Your task to perform on an android device: open app "PlayWell" (install if not already installed) Image 0: 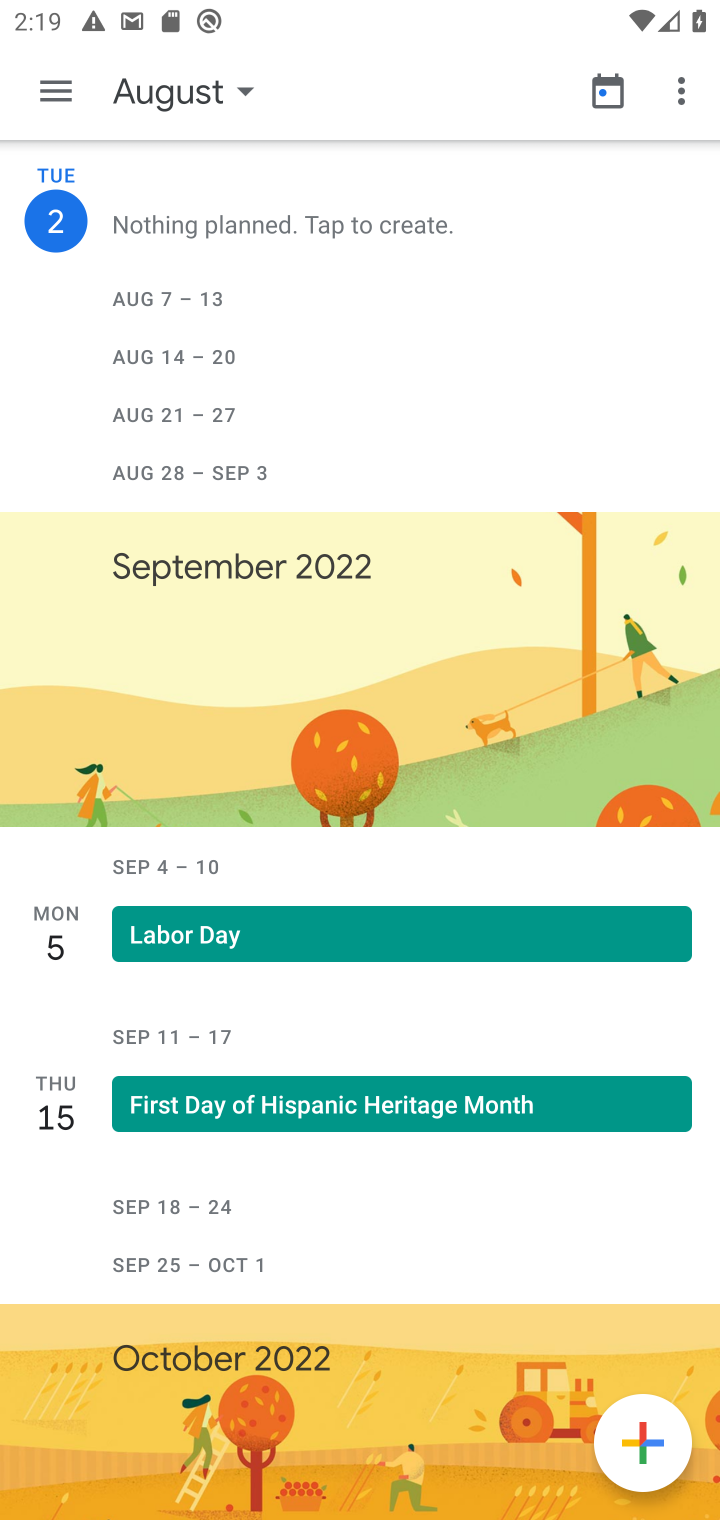
Step 0: press home button
Your task to perform on an android device: open app "PlayWell" (install if not already installed) Image 1: 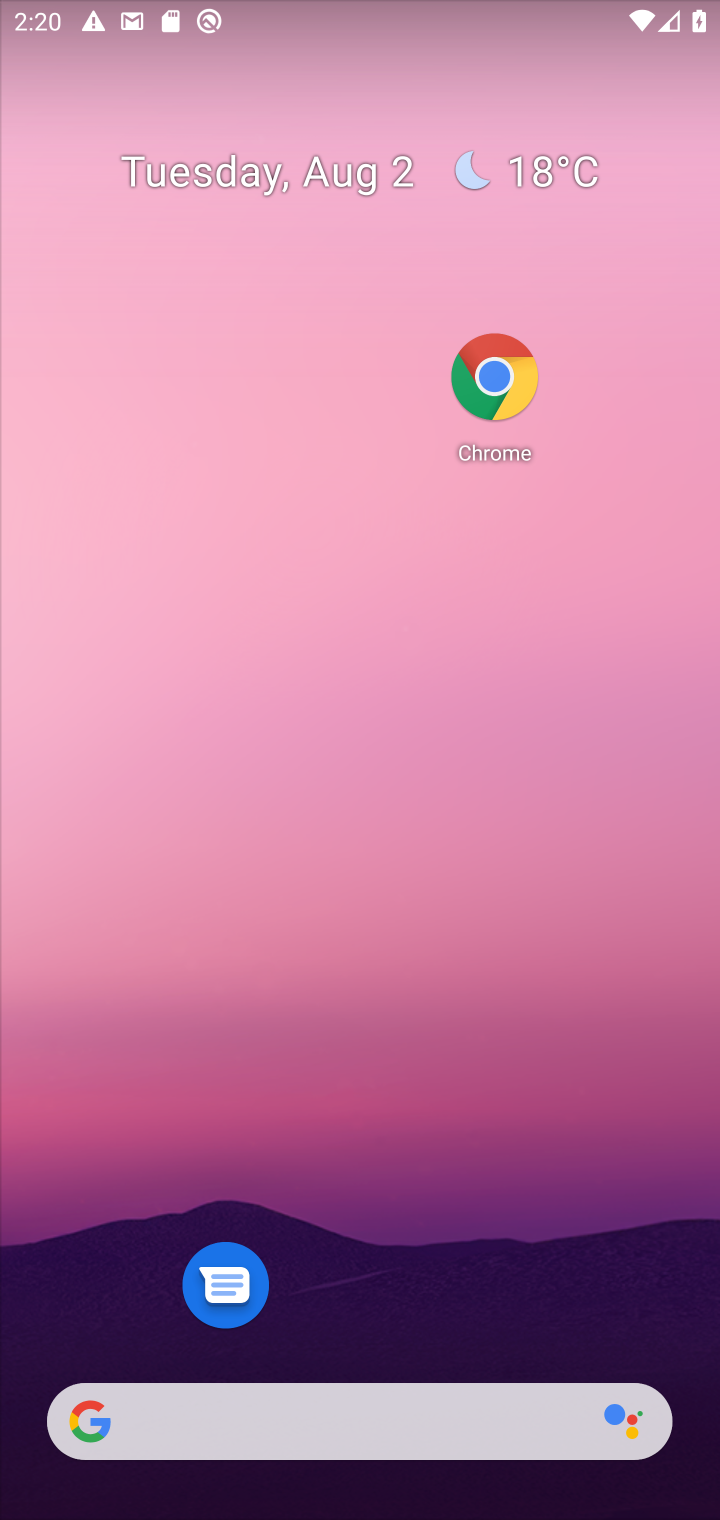
Step 1: drag from (461, 1094) to (480, 113)
Your task to perform on an android device: open app "PlayWell" (install if not already installed) Image 2: 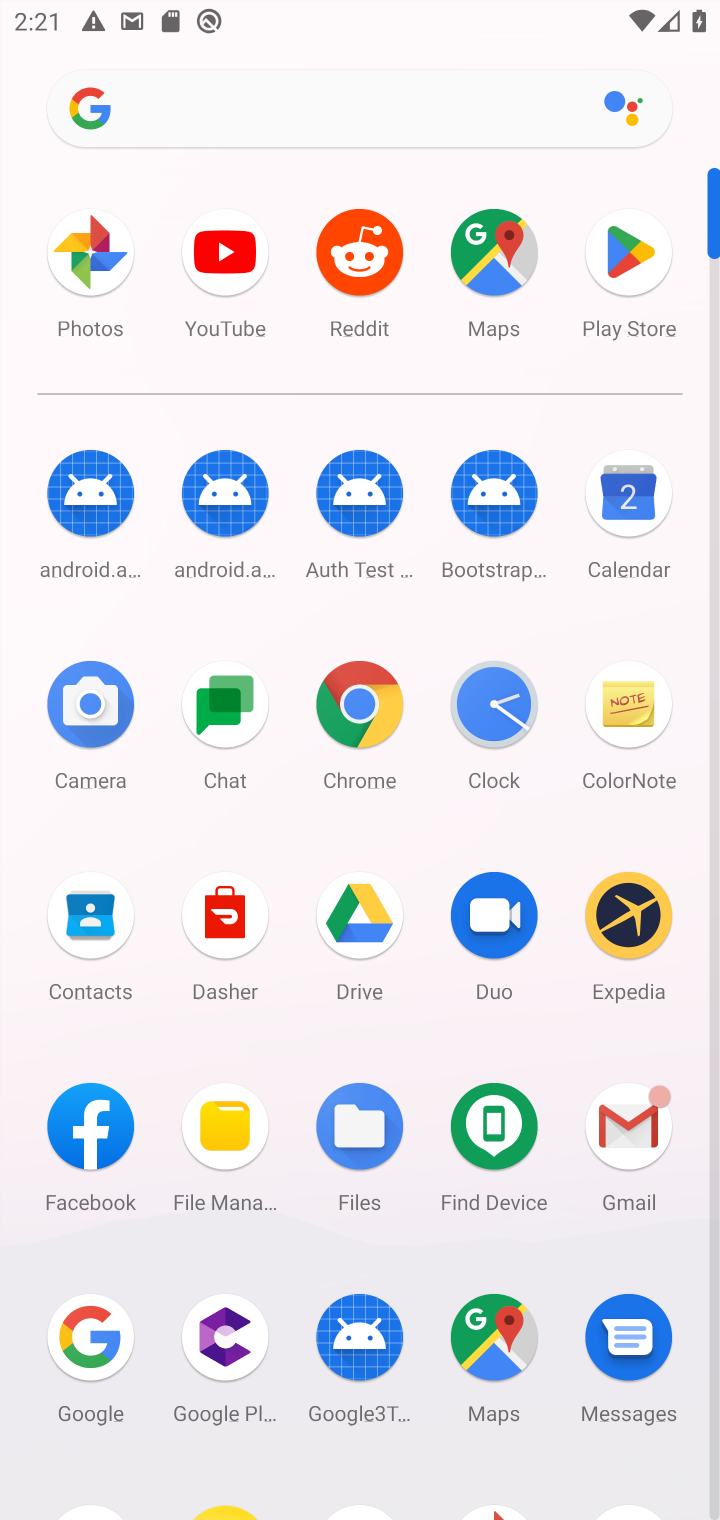
Step 2: click (641, 249)
Your task to perform on an android device: open app "PlayWell" (install if not already installed) Image 3: 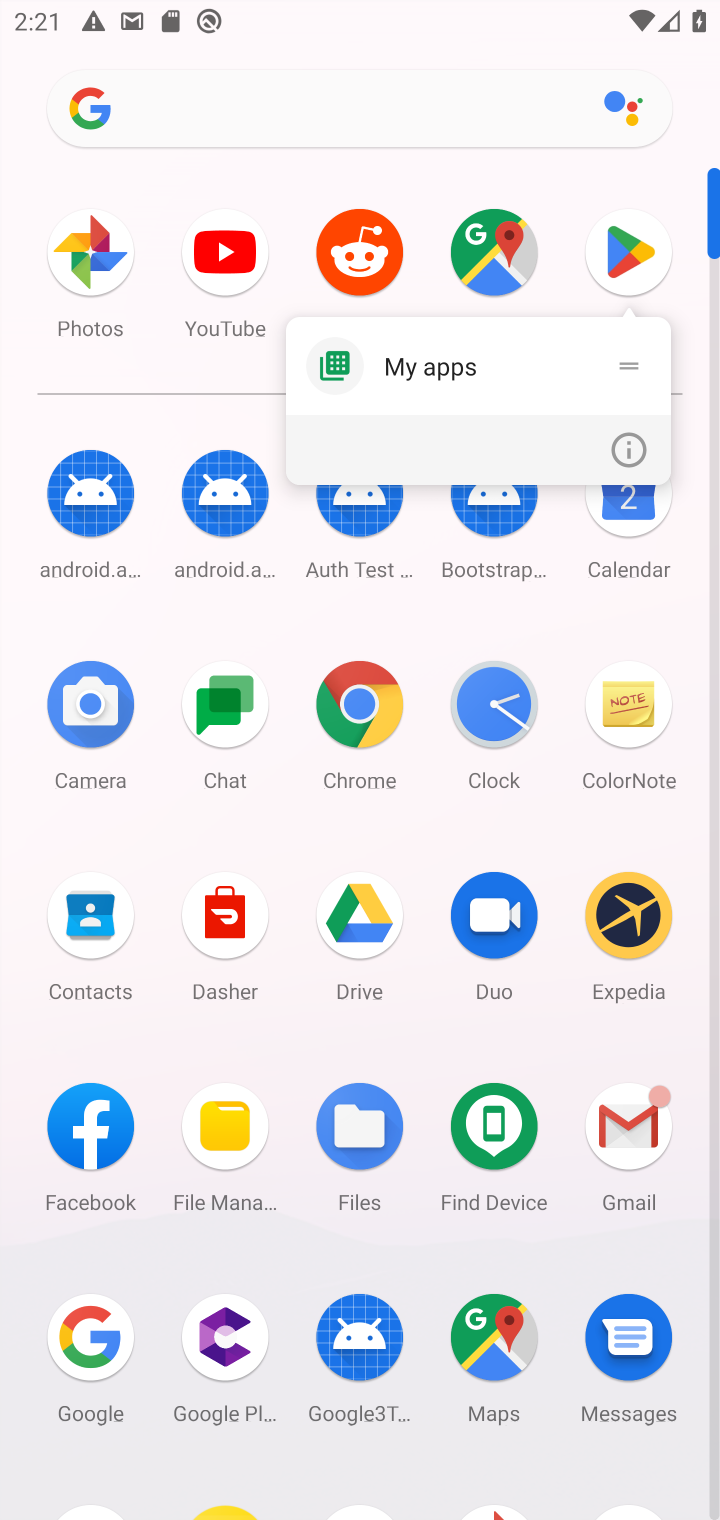
Step 3: click (630, 252)
Your task to perform on an android device: open app "PlayWell" (install if not already installed) Image 4: 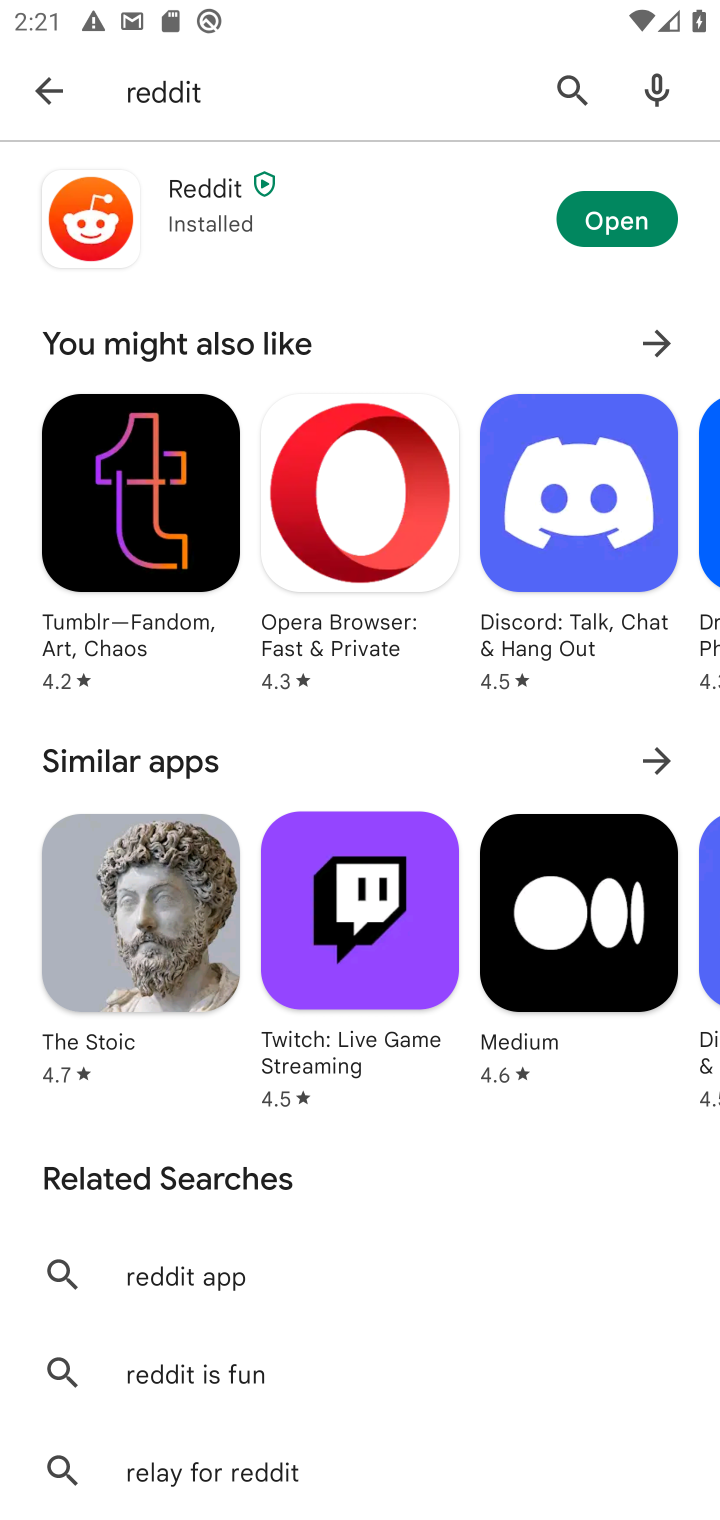
Step 4: click (572, 78)
Your task to perform on an android device: open app "PlayWell" (install if not already installed) Image 5: 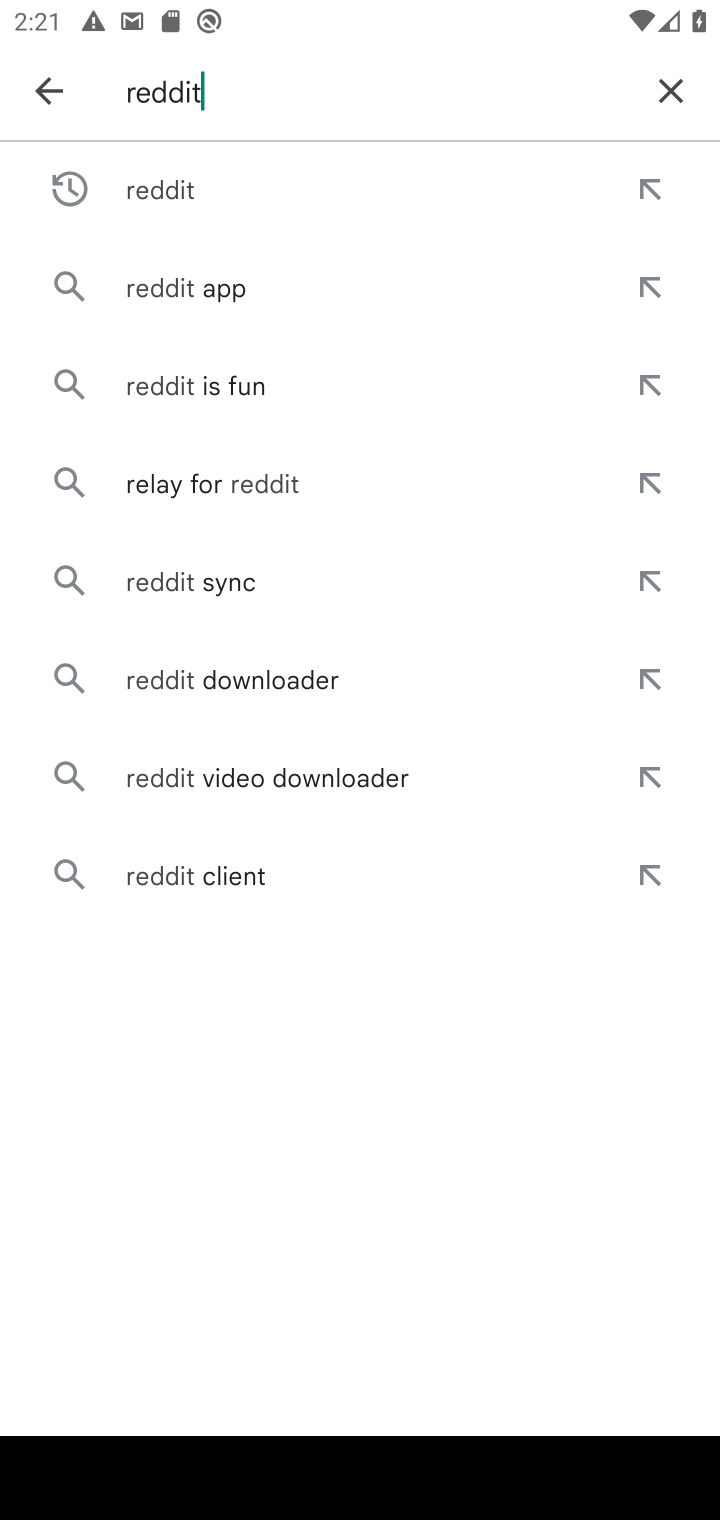
Step 5: click (688, 86)
Your task to perform on an android device: open app "PlayWell" (install if not already installed) Image 6: 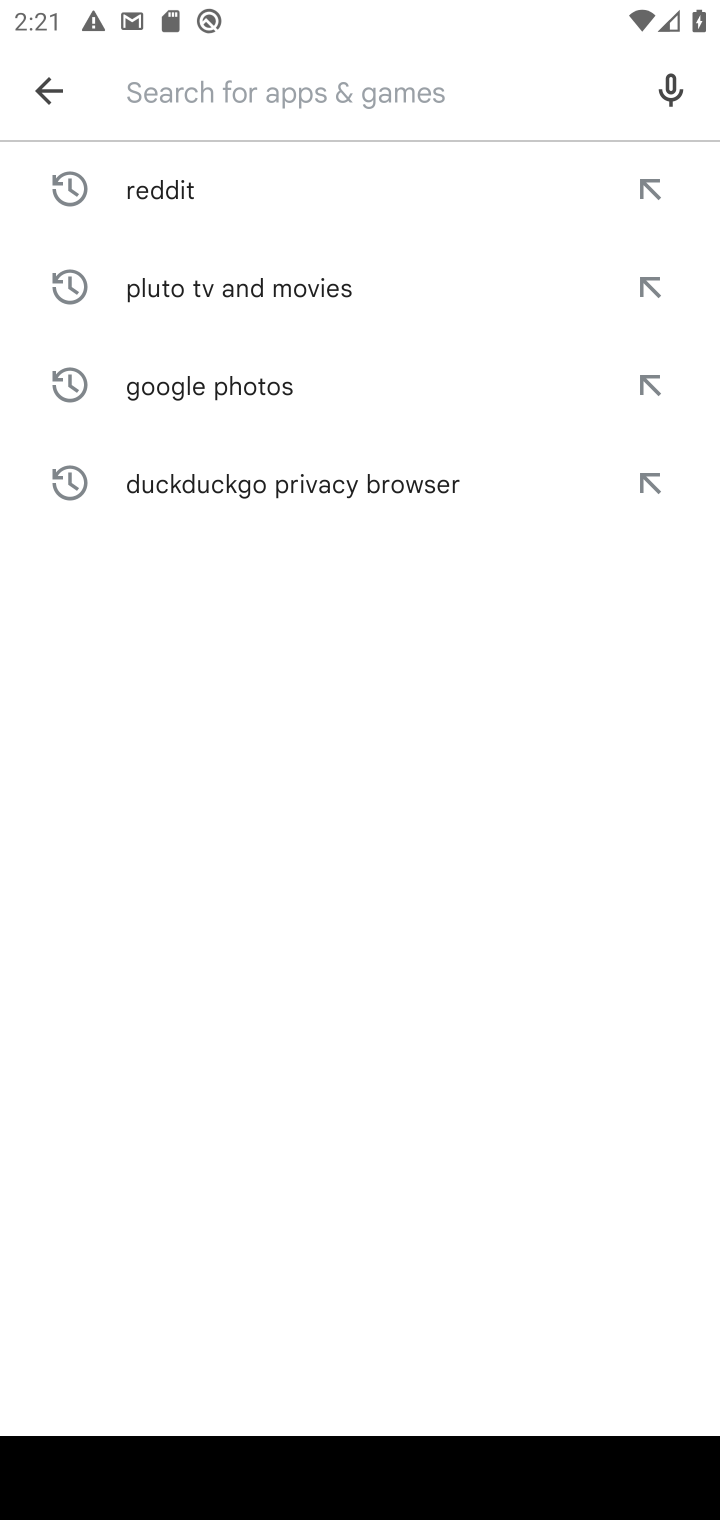
Step 6: type "PlayWell"
Your task to perform on an android device: open app "PlayWell" (install if not already installed) Image 7: 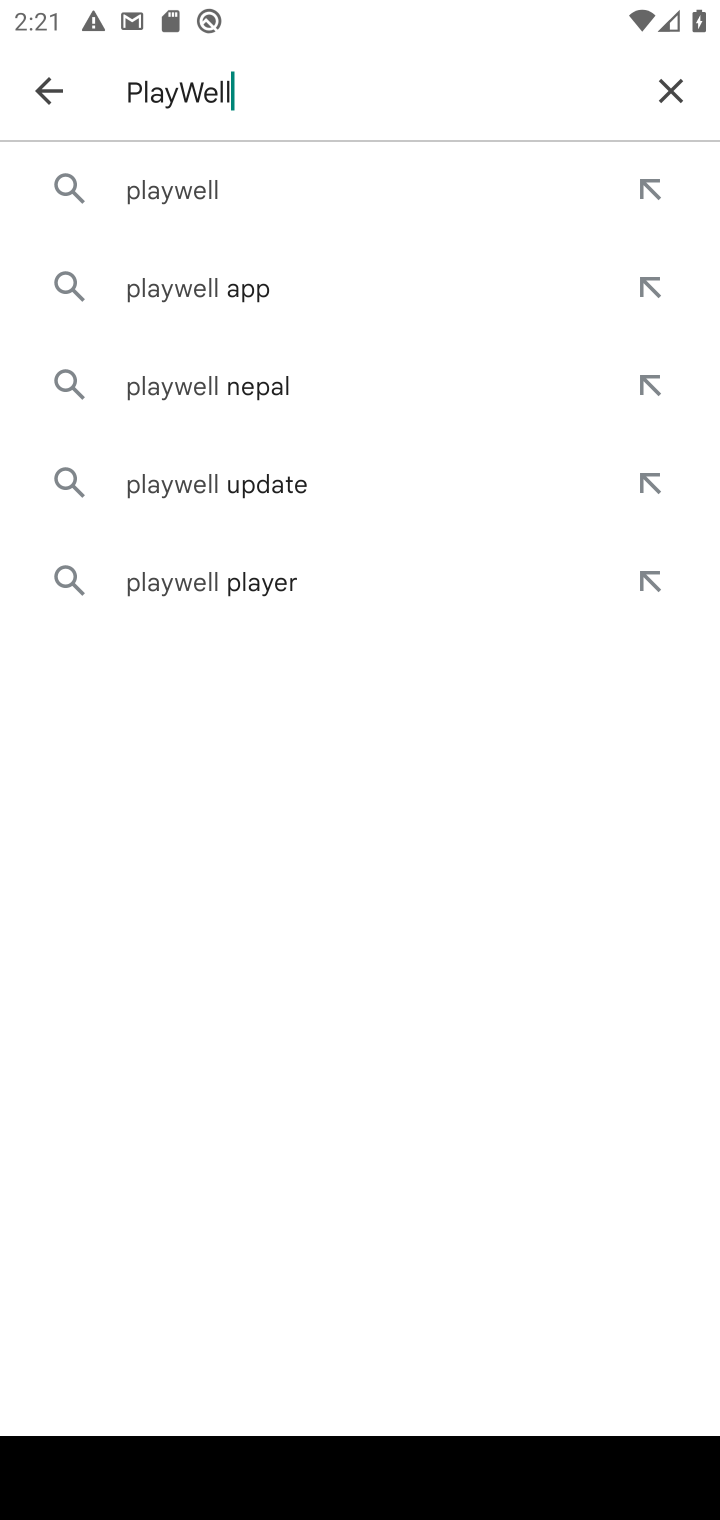
Step 7: click (125, 195)
Your task to perform on an android device: open app "PlayWell" (install if not already installed) Image 8: 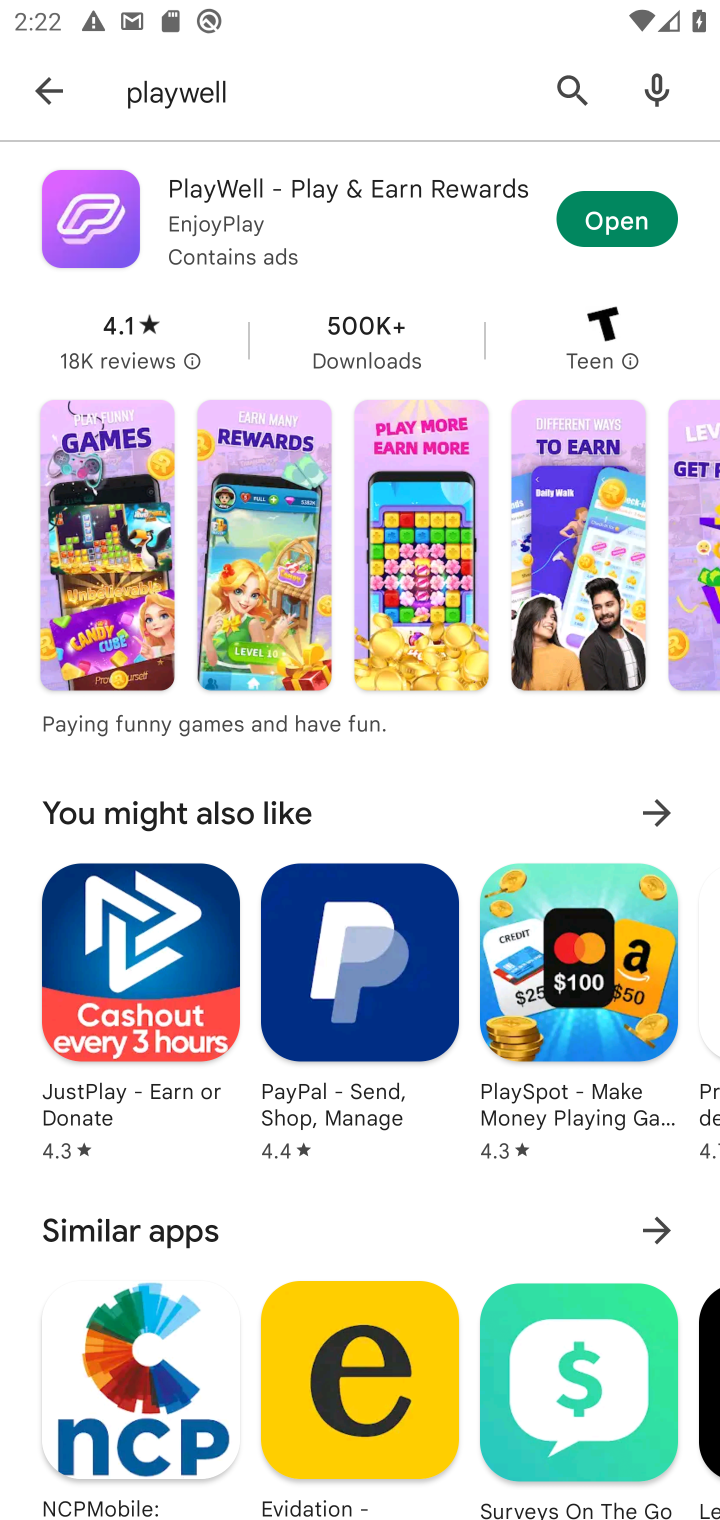
Step 8: click (605, 211)
Your task to perform on an android device: open app "PlayWell" (install if not already installed) Image 9: 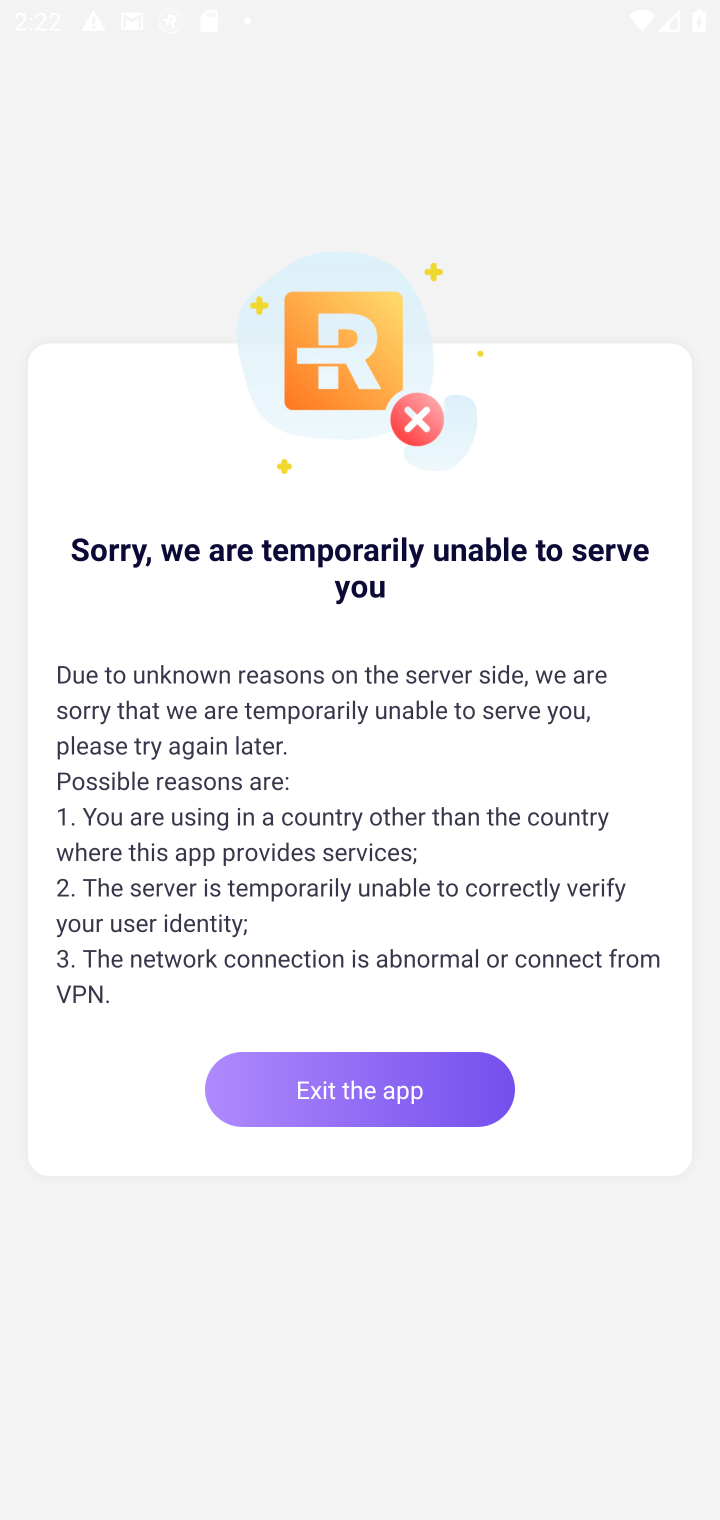
Step 9: task complete